Your task to perform on an android device: turn off sleep mode Image 0: 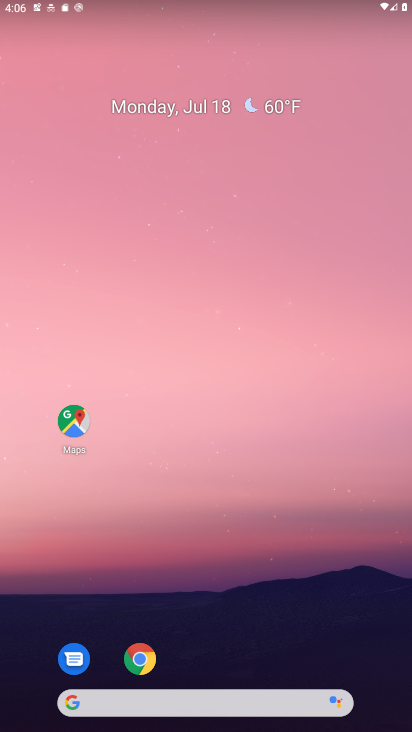
Step 0: drag from (310, 617) to (315, 53)
Your task to perform on an android device: turn off sleep mode Image 1: 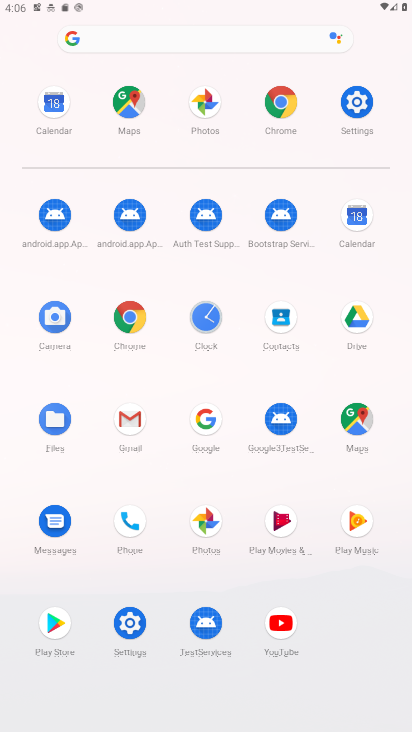
Step 1: click (367, 91)
Your task to perform on an android device: turn off sleep mode Image 2: 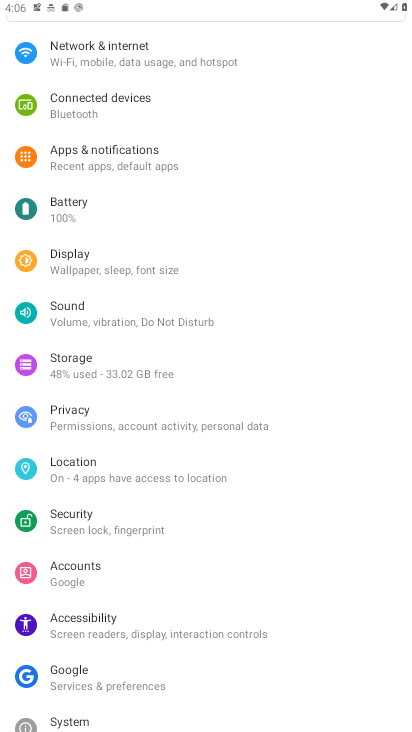
Step 2: click (125, 267)
Your task to perform on an android device: turn off sleep mode Image 3: 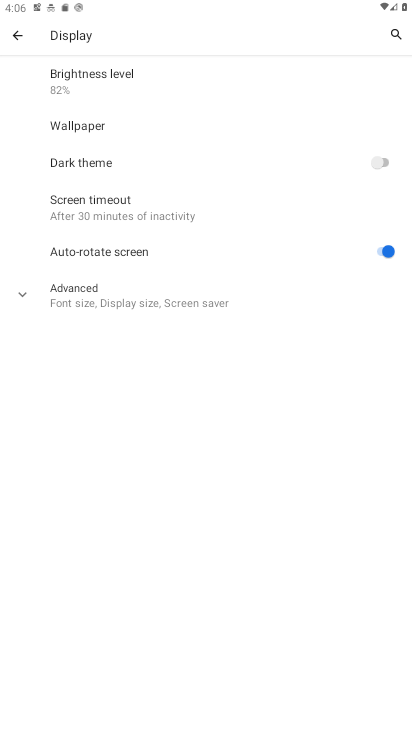
Step 3: task complete